Your task to perform on an android device: turn on airplane mode Image 0: 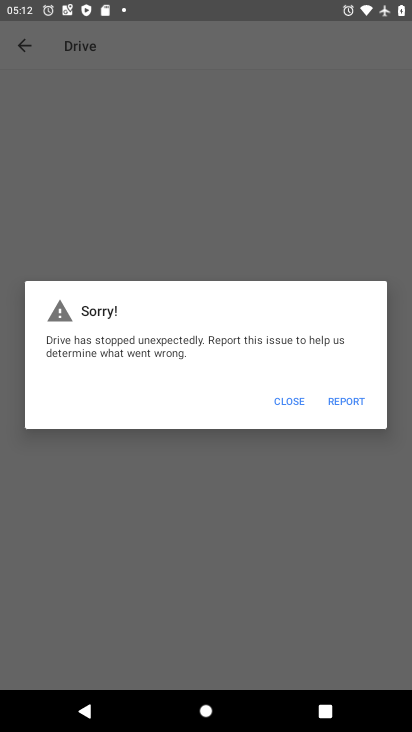
Step 0: press home button
Your task to perform on an android device: turn on airplane mode Image 1: 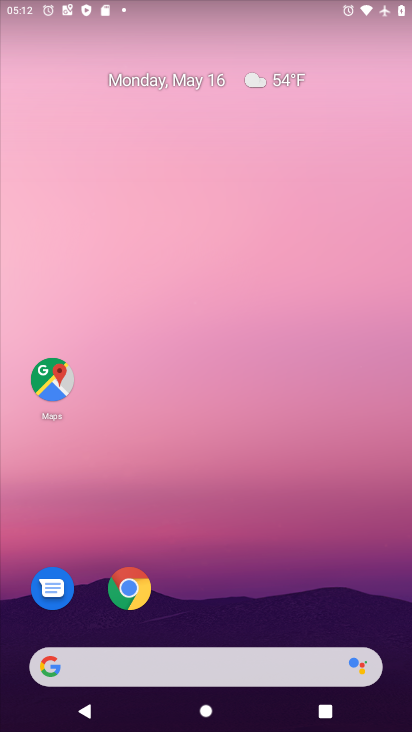
Step 1: drag from (303, 558) to (336, 4)
Your task to perform on an android device: turn on airplane mode Image 2: 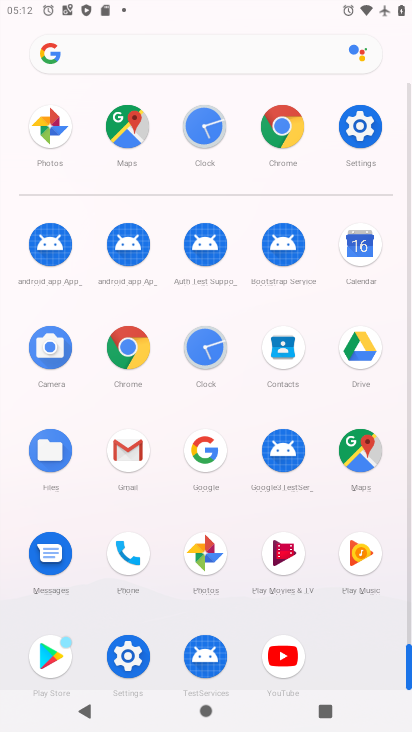
Step 2: drag from (12, 535) to (22, 297)
Your task to perform on an android device: turn on airplane mode Image 3: 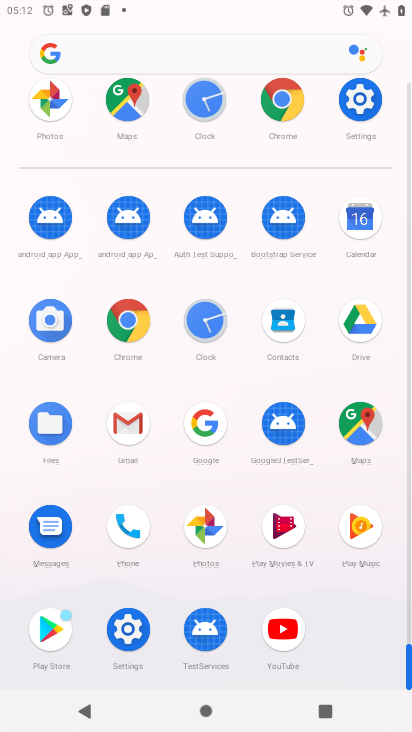
Step 3: click (126, 626)
Your task to perform on an android device: turn on airplane mode Image 4: 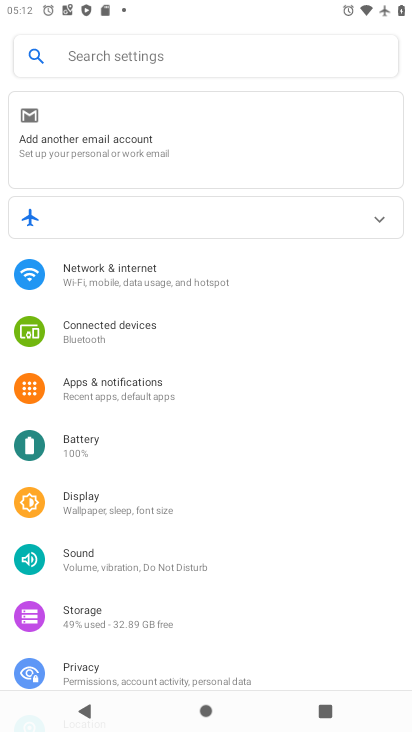
Step 4: click (146, 266)
Your task to perform on an android device: turn on airplane mode Image 5: 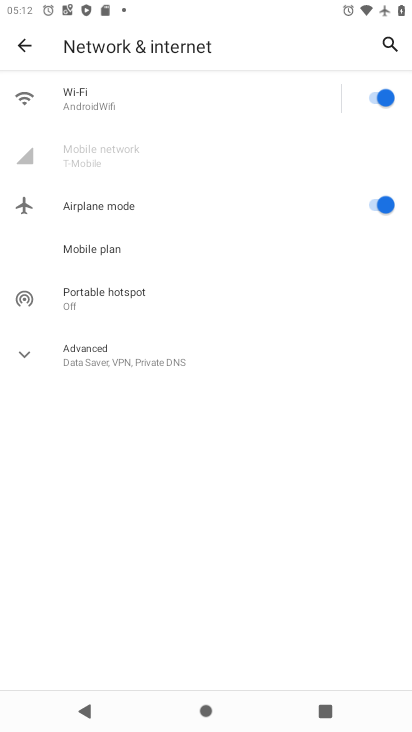
Step 5: click (54, 357)
Your task to perform on an android device: turn on airplane mode Image 6: 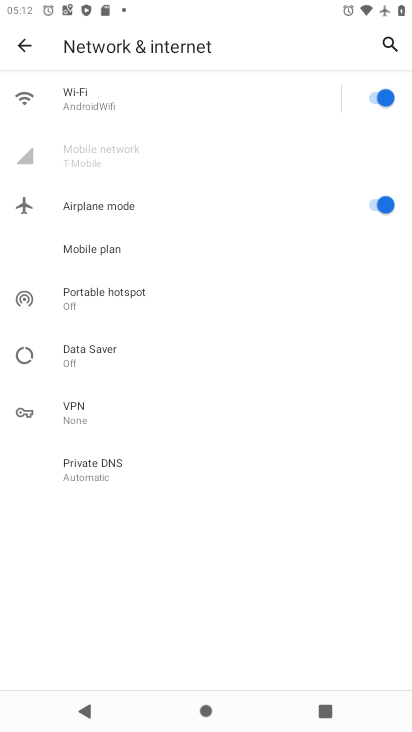
Step 6: task complete